Your task to perform on an android device: delete a single message in the gmail app Image 0: 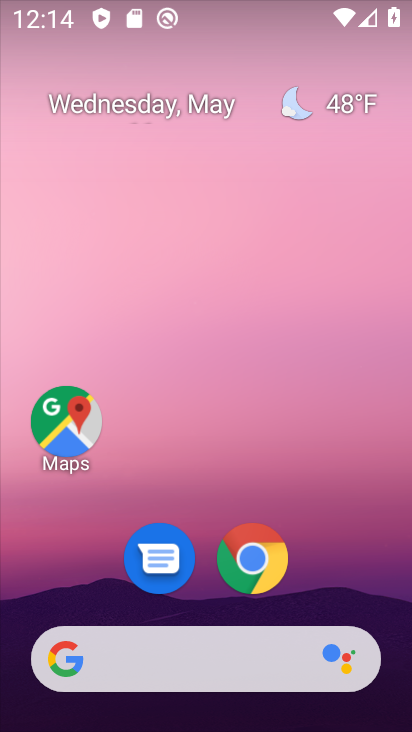
Step 0: drag from (381, 575) to (384, 209)
Your task to perform on an android device: delete a single message in the gmail app Image 1: 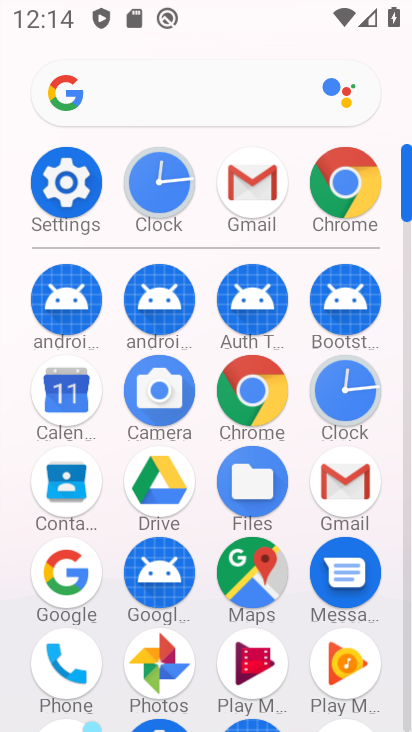
Step 1: click (347, 498)
Your task to perform on an android device: delete a single message in the gmail app Image 2: 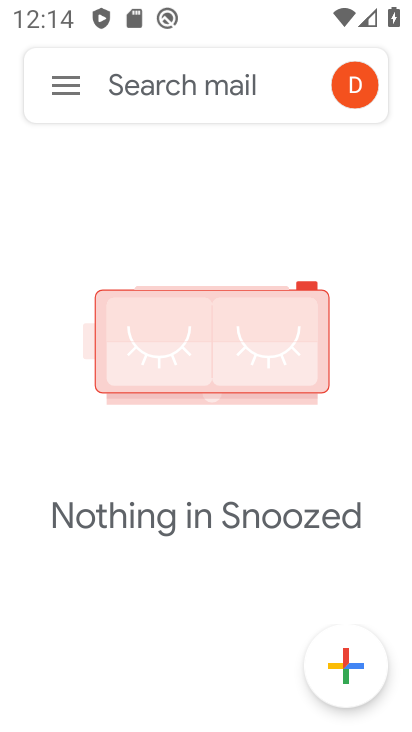
Step 2: click (69, 86)
Your task to perform on an android device: delete a single message in the gmail app Image 3: 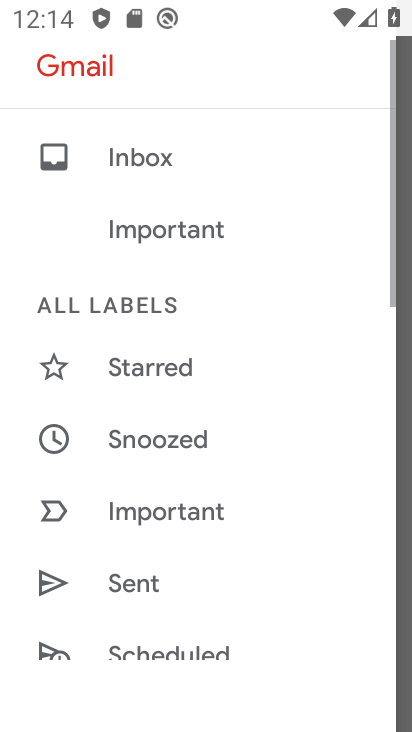
Step 3: drag from (196, 584) to (247, 217)
Your task to perform on an android device: delete a single message in the gmail app Image 4: 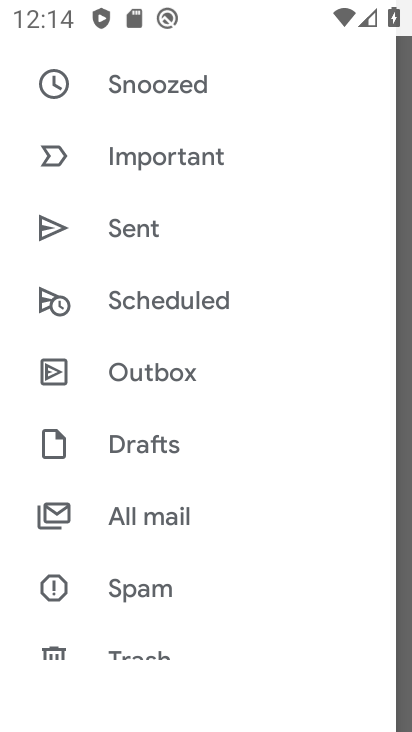
Step 4: drag from (233, 590) to (278, 277)
Your task to perform on an android device: delete a single message in the gmail app Image 5: 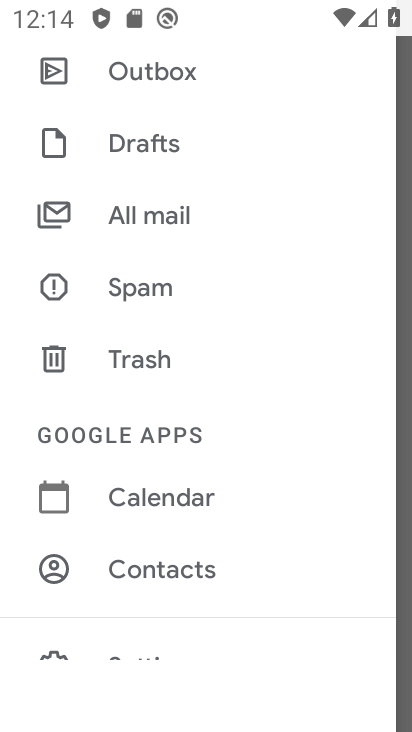
Step 5: click (182, 212)
Your task to perform on an android device: delete a single message in the gmail app Image 6: 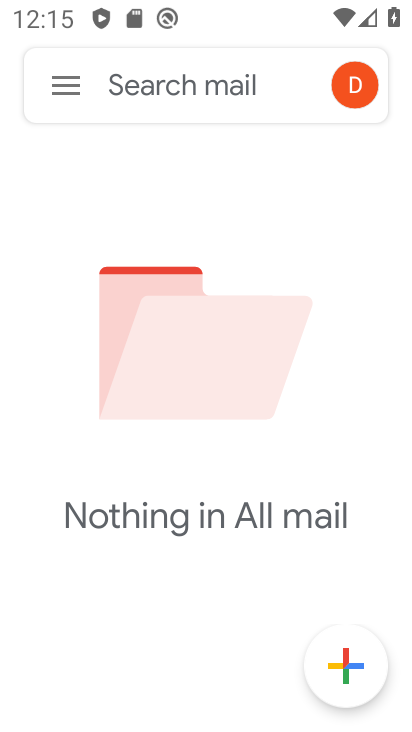
Step 6: task complete